Your task to perform on an android device: change the upload size in google photos Image 0: 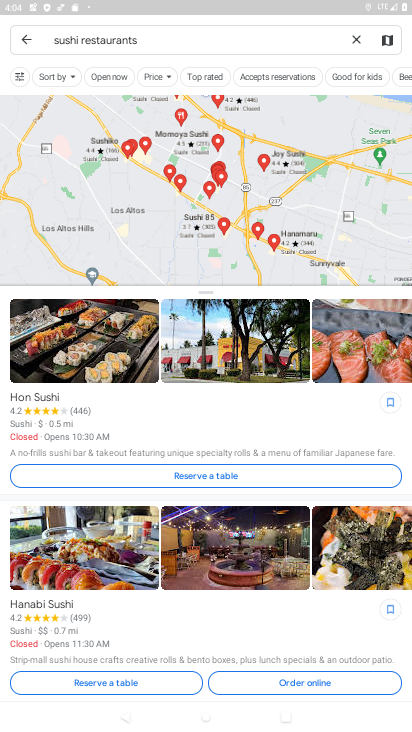
Step 0: press home button
Your task to perform on an android device: change the upload size in google photos Image 1: 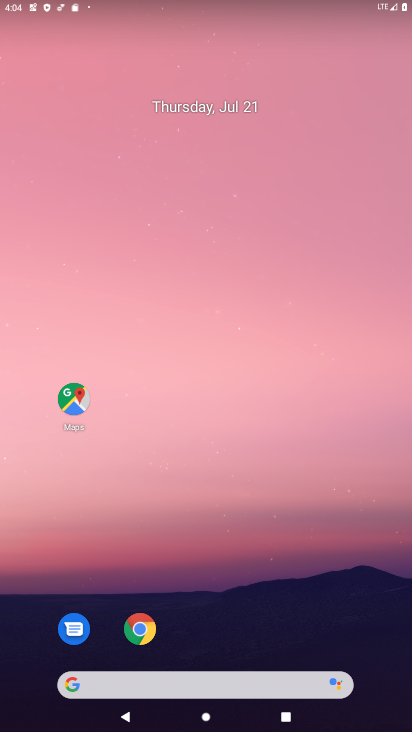
Step 1: drag from (259, 612) to (151, 127)
Your task to perform on an android device: change the upload size in google photos Image 2: 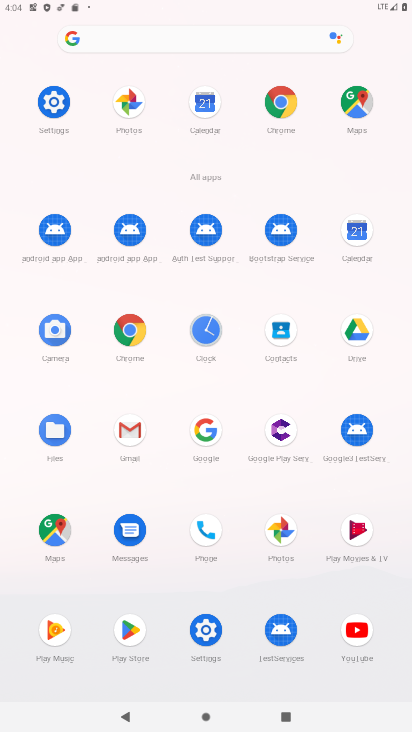
Step 2: click (128, 112)
Your task to perform on an android device: change the upload size in google photos Image 3: 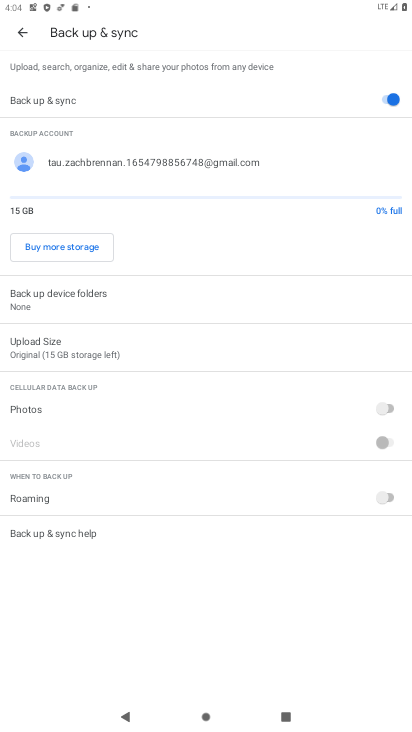
Step 3: click (116, 349)
Your task to perform on an android device: change the upload size in google photos Image 4: 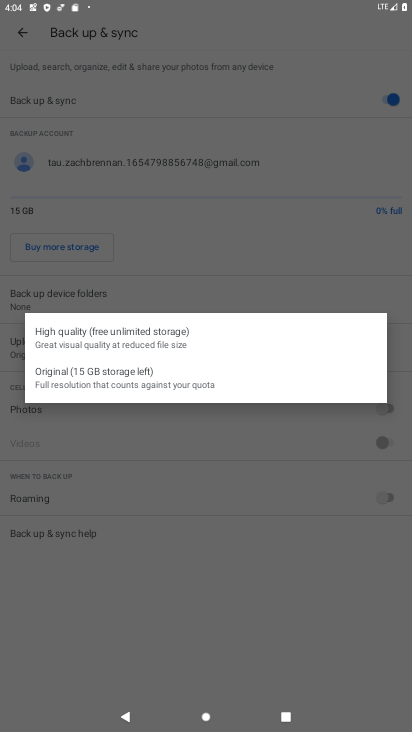
Step 4: click (122, 377)
Your task to perform on an android device: change the upload size in google photos Image 5: 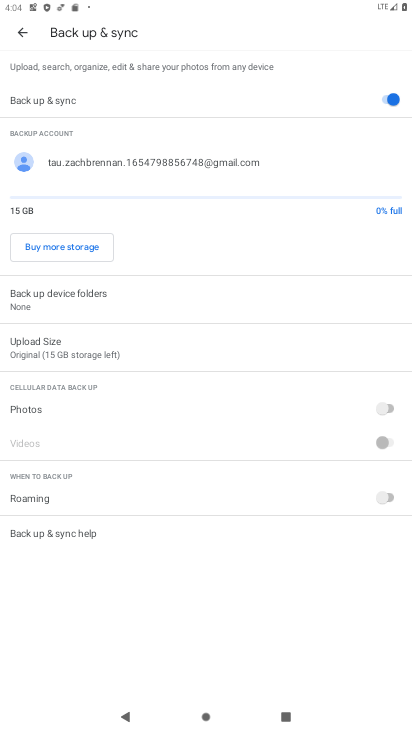
Step 5: task complete